Your task to perform on an android device: turn off location history Image 0: 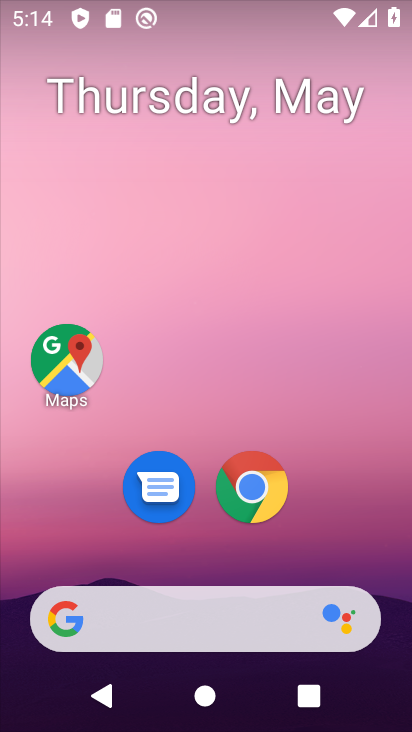
Step 0: drag from (337, 512) to (339, 86)
Your task to perform on an android device: turn off location history Image 1: 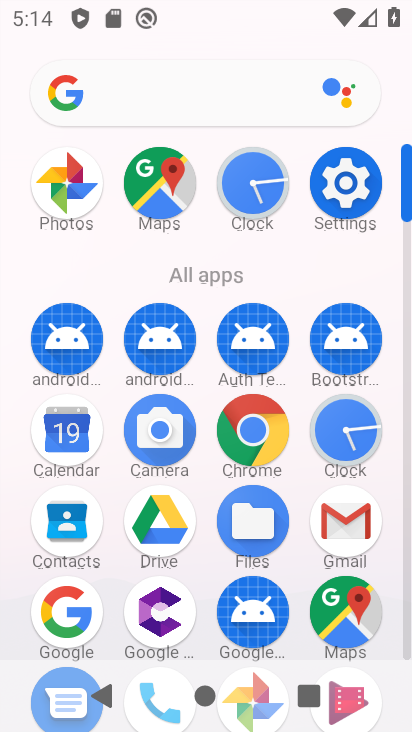
Step 1: click (336, 188)
Your task to perform on an android device: turn off location history Image 2: 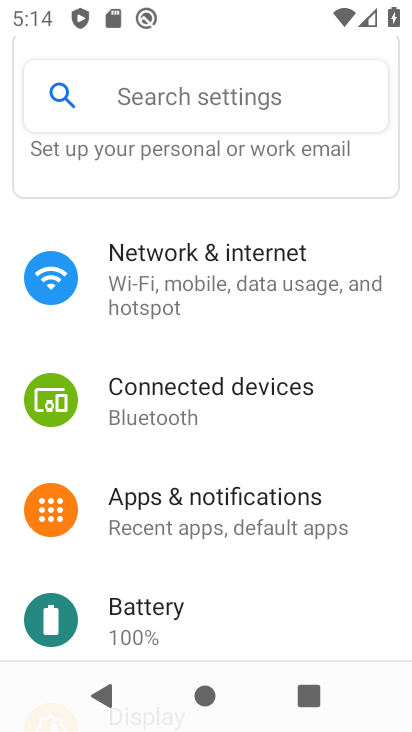
Step 2: drag from (241, 585) to (293, 31)
Your task to perform on an android device: turn off location history Image 3: 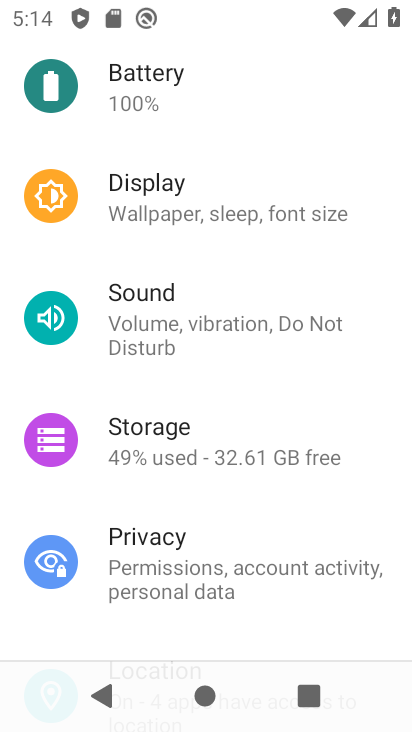
Step 3: drag from (226, 518) to (255, 176)
Your task to perform on an android device: turn off location history Image 4: 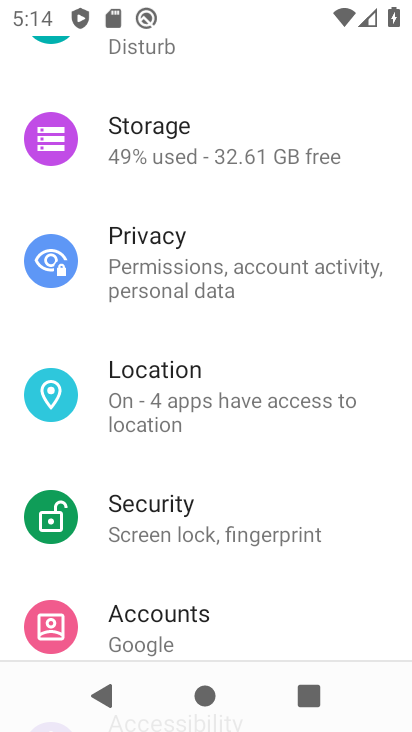
Step 4: click (210, 407)
Your task to perform on an android device: turn off location history Image 5: 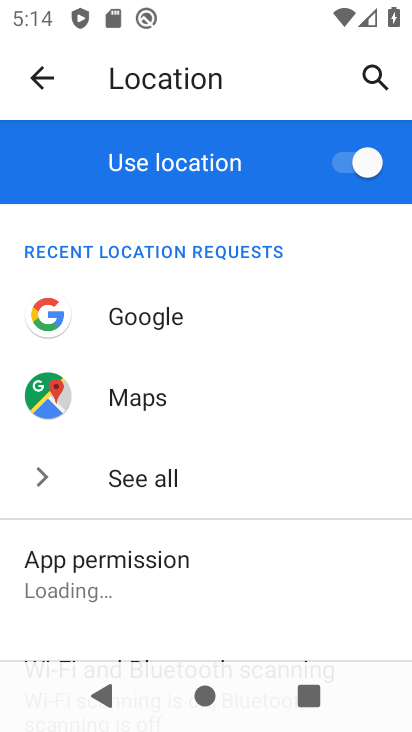
Step 5: drag from (198, 606) to (273, 240)
Your task to perform on an android device: turn off location history Image 6: 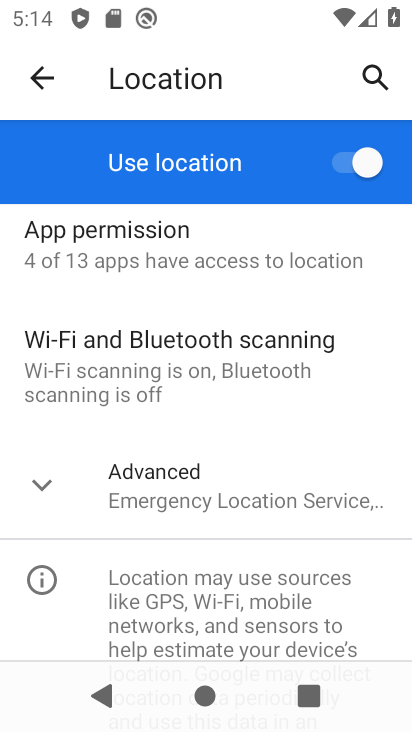
Step 6: click (48, 486)
Your task to perform on an android device: turn off location history Image 7: 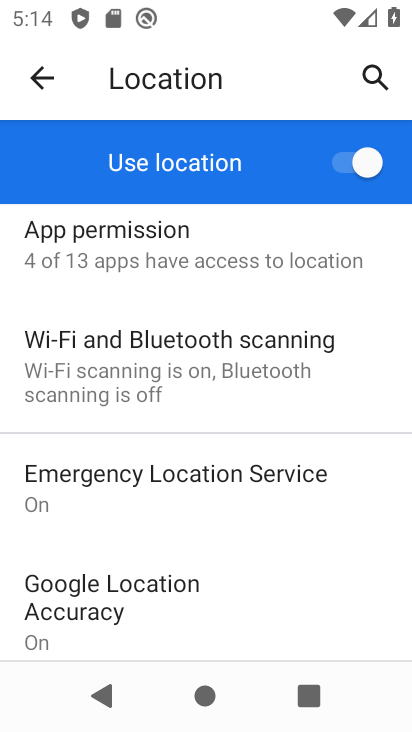
Step 7: task complete